Your task to perform on an android device: Open accessibility settings Image 0: 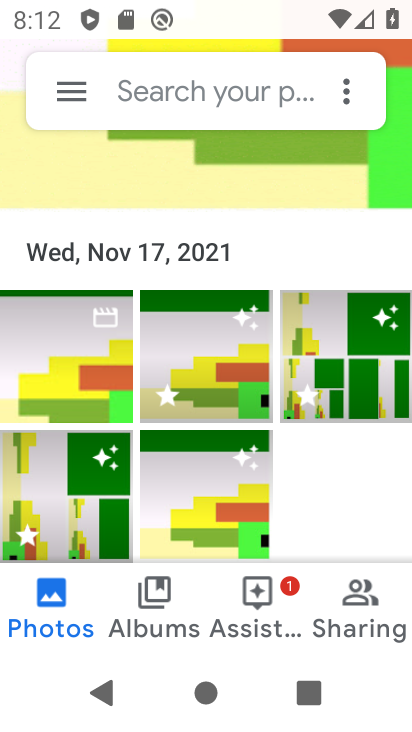
Step 0: press home button
Your task to perform on an android device: Open accessibility settings Image 1: 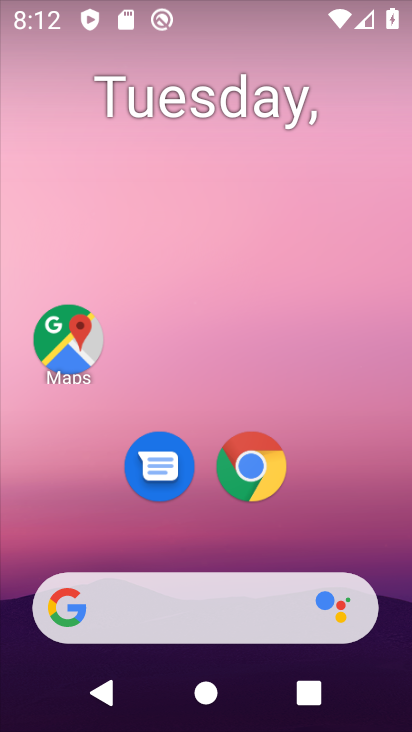
Step 1: drag from (207, 534) to (239, 1)
Your task to perform on an android device: Open accessibility settings Image 2: 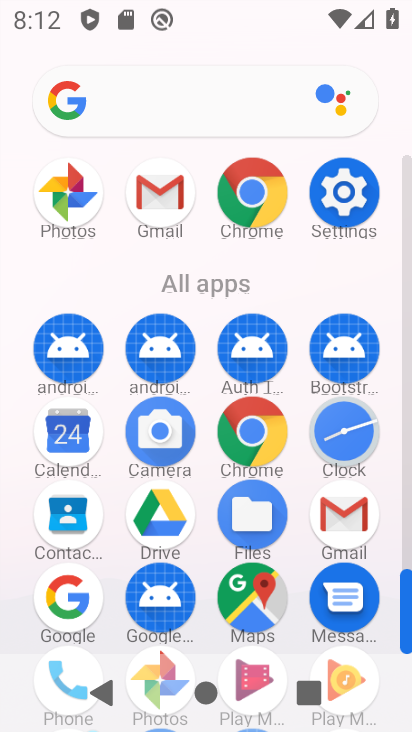
Step 2: click (351, 213)
Your task to perform on an android device: Open accessibility settings Image 3: 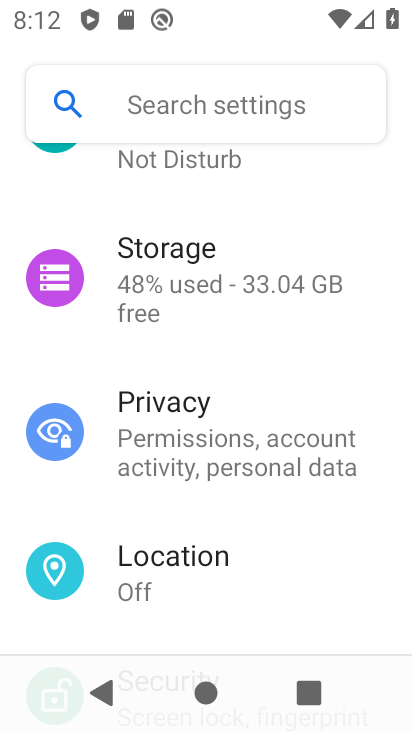
Step 3: drag from (218, 567) to (260, 260)
Your task to perform on an android device: Open accessibility settings Image 4: 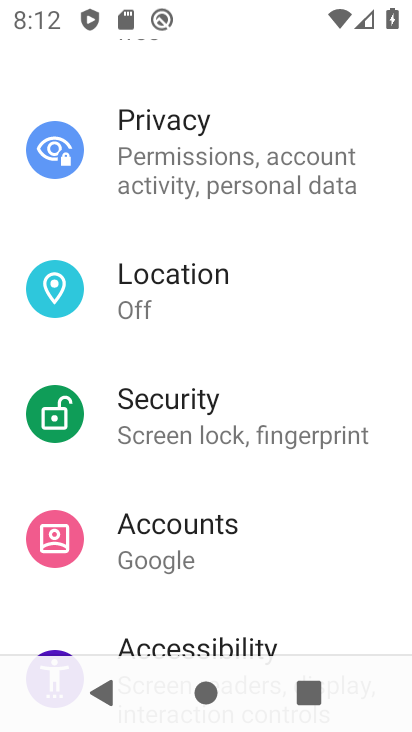
Step 4: drag from (219, 533) to (255, 311)
Your task to perform on an android device: Open accessibility settings Image 5: 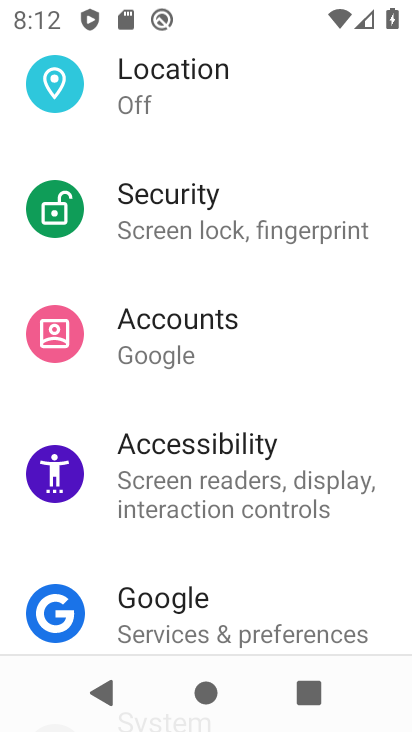
Step 5: click (225, 476)
Your task to perform on an android device: Open accessibility settings Image 6: 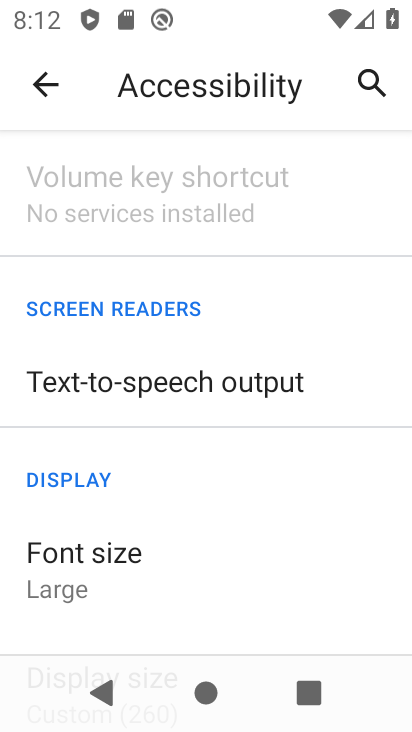
Step 6: task complete